Your task to perform on an android device: open chrome privacy settings Image 0: 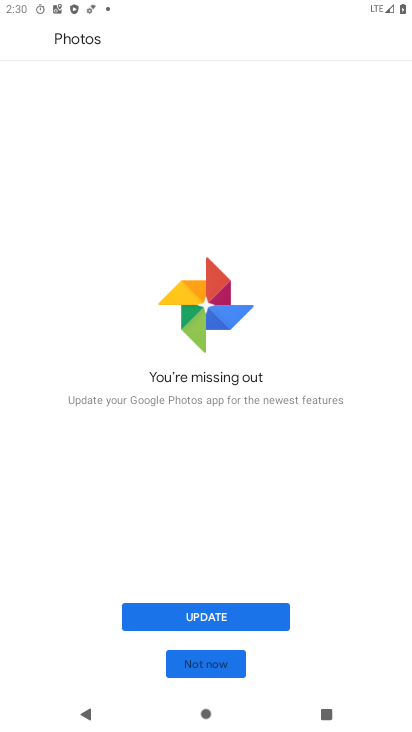
Step 0: press home button
Your task to perform on an android device: open chrome privacy settings Image 1: 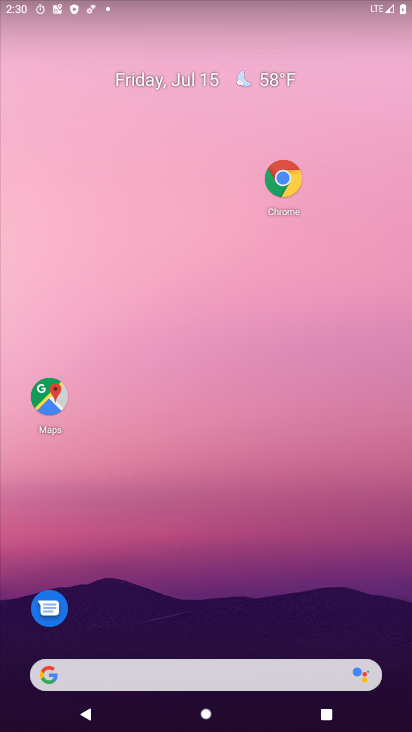
Step 1: click (270, 182)
Your task to perform on an android device: open chrome privacy settings Image 2: 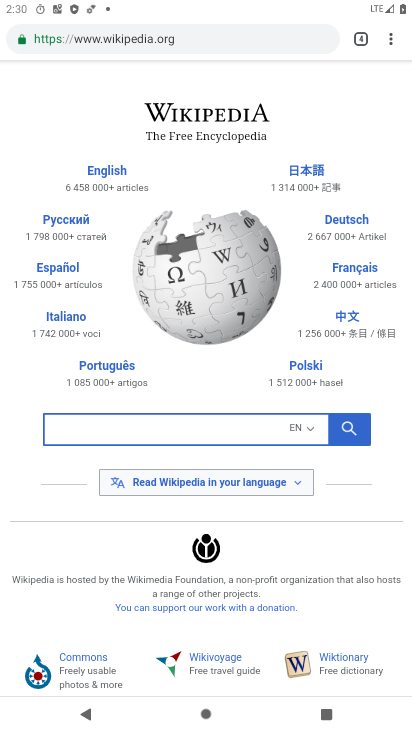
Step 2: drag from (395, 41) to (246, 477)
Your task to perform on an android device: open chrome privacy settings Image 3: 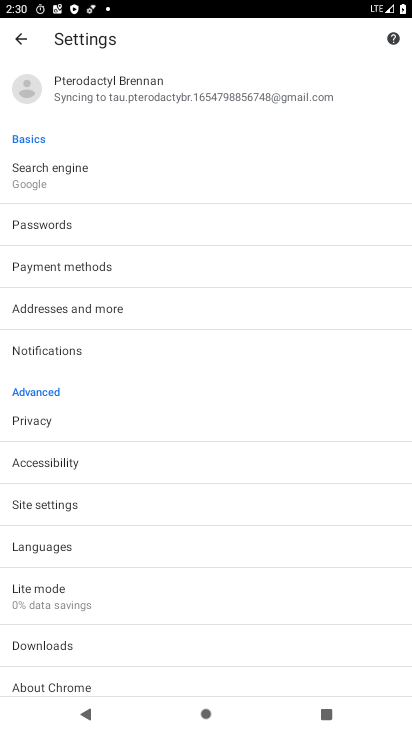
Step 3: click (12, 414)
Your task to perform on an android device: open chrome privacy settings Image 4: 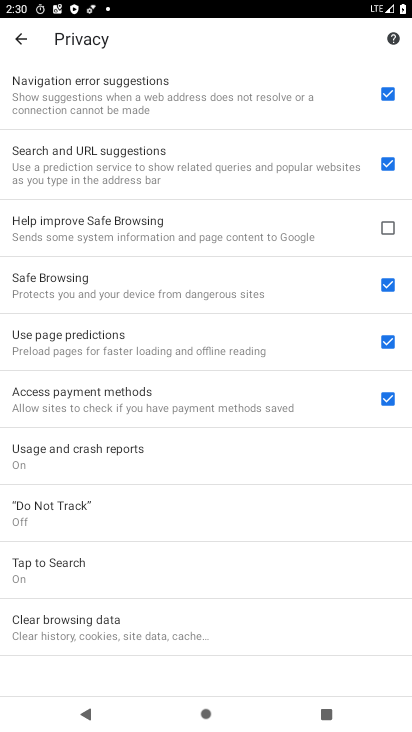
Step 4: task complete